Your task to perform on an android device: turn smart compose on in the gmail app Image 0: 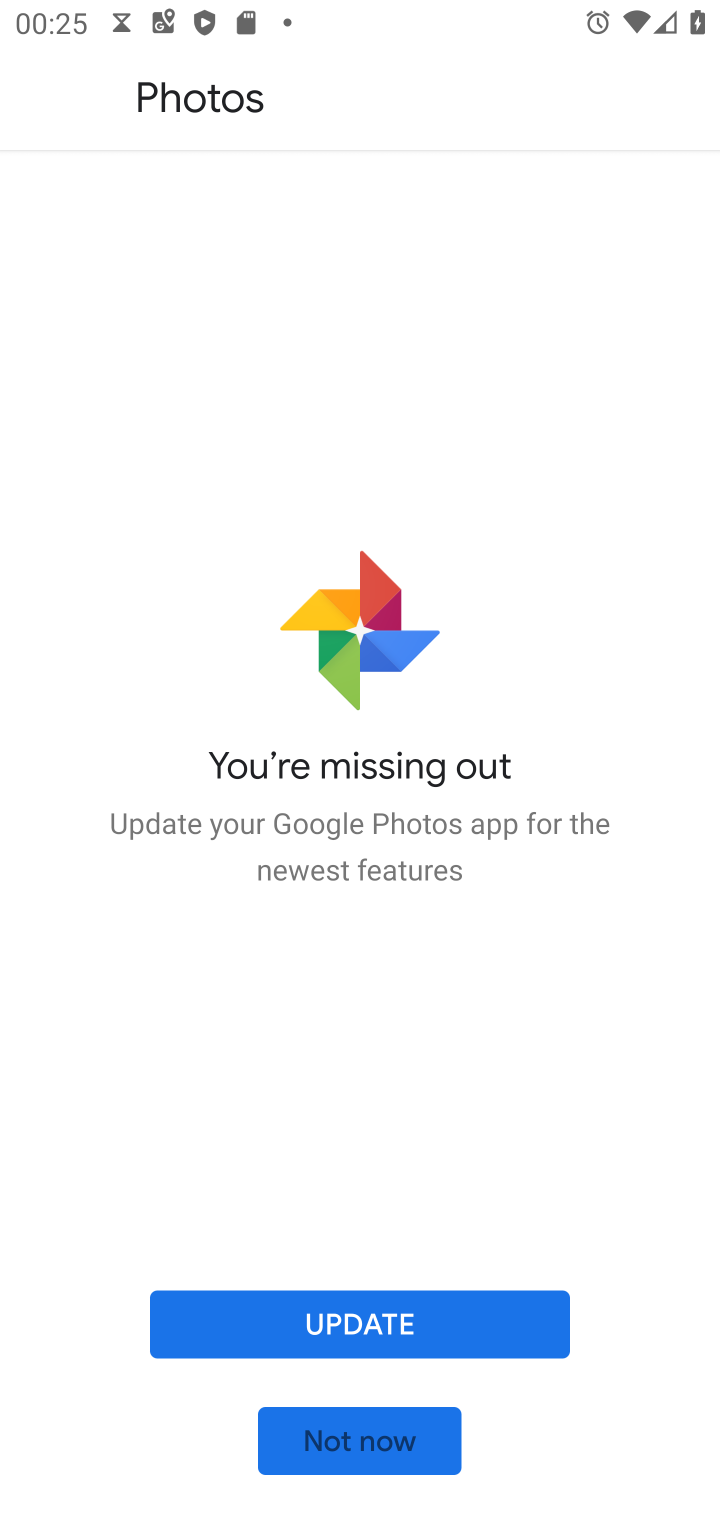
Step 0: press home button
Your task to perform on an android device: turn smart compose on in the gmail app Image 1: 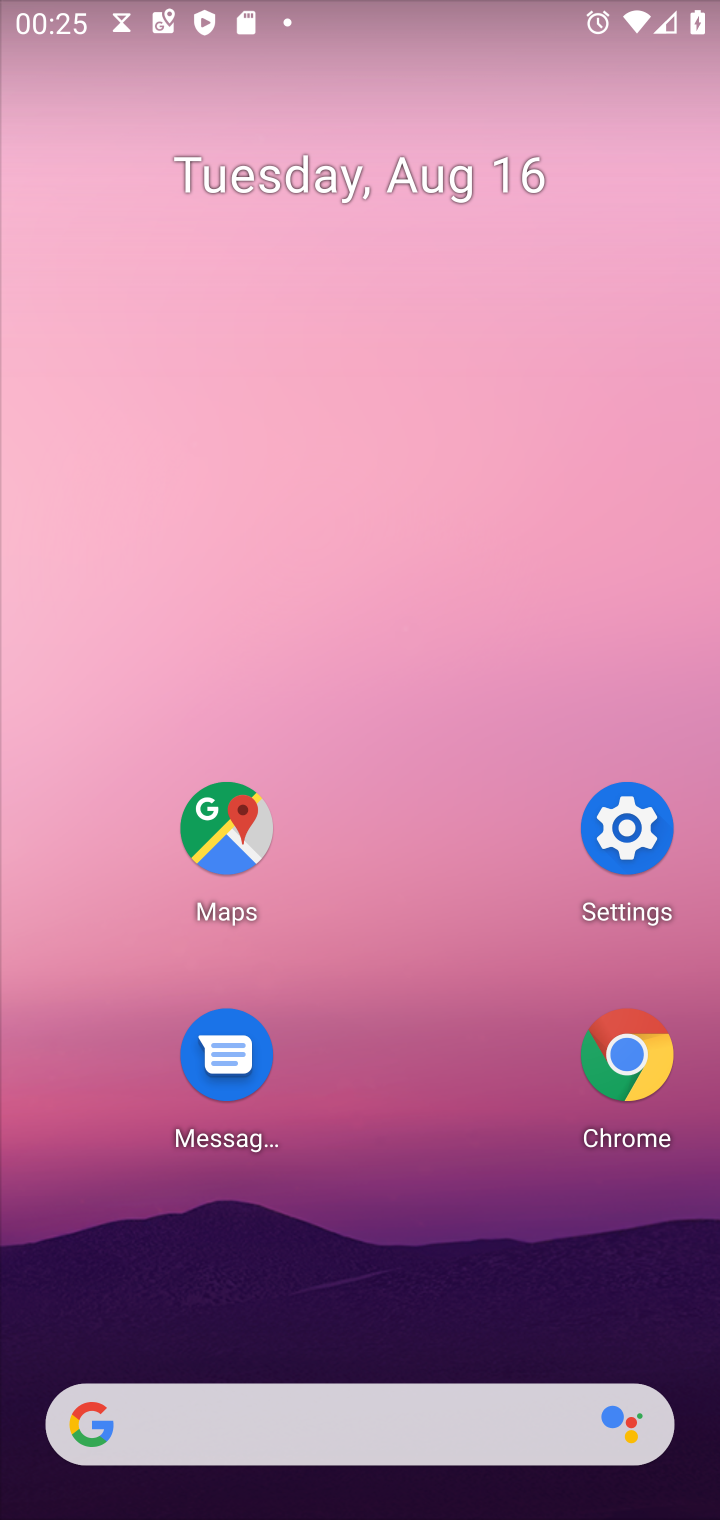
Step 1: drag from (325, 1424) to (457, 178)
Your task to perform on an android device: turn smart compose on in the gmail app Image 2: 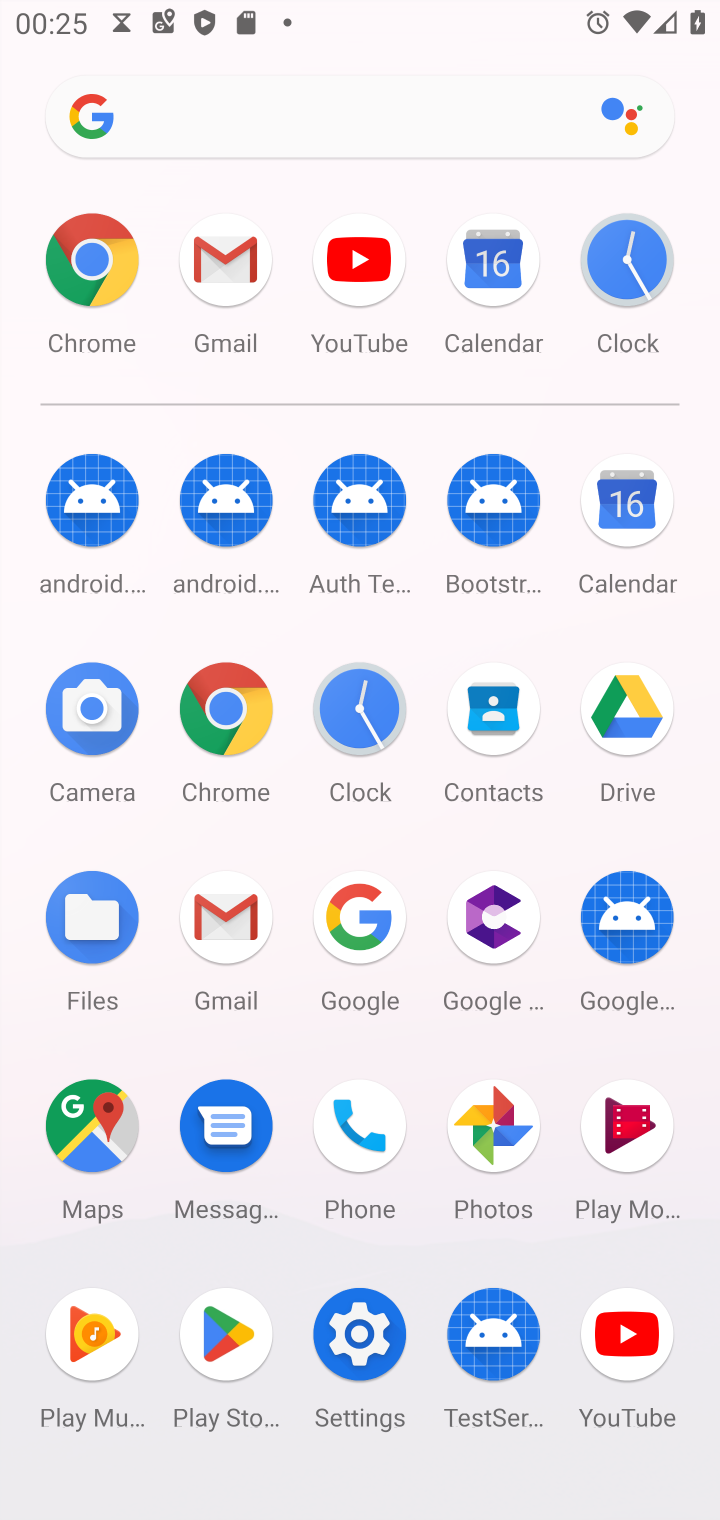
Step 2: click (230, 907)
Your task to perform on an android device: turn smart compose on in the gmail app Image 3: 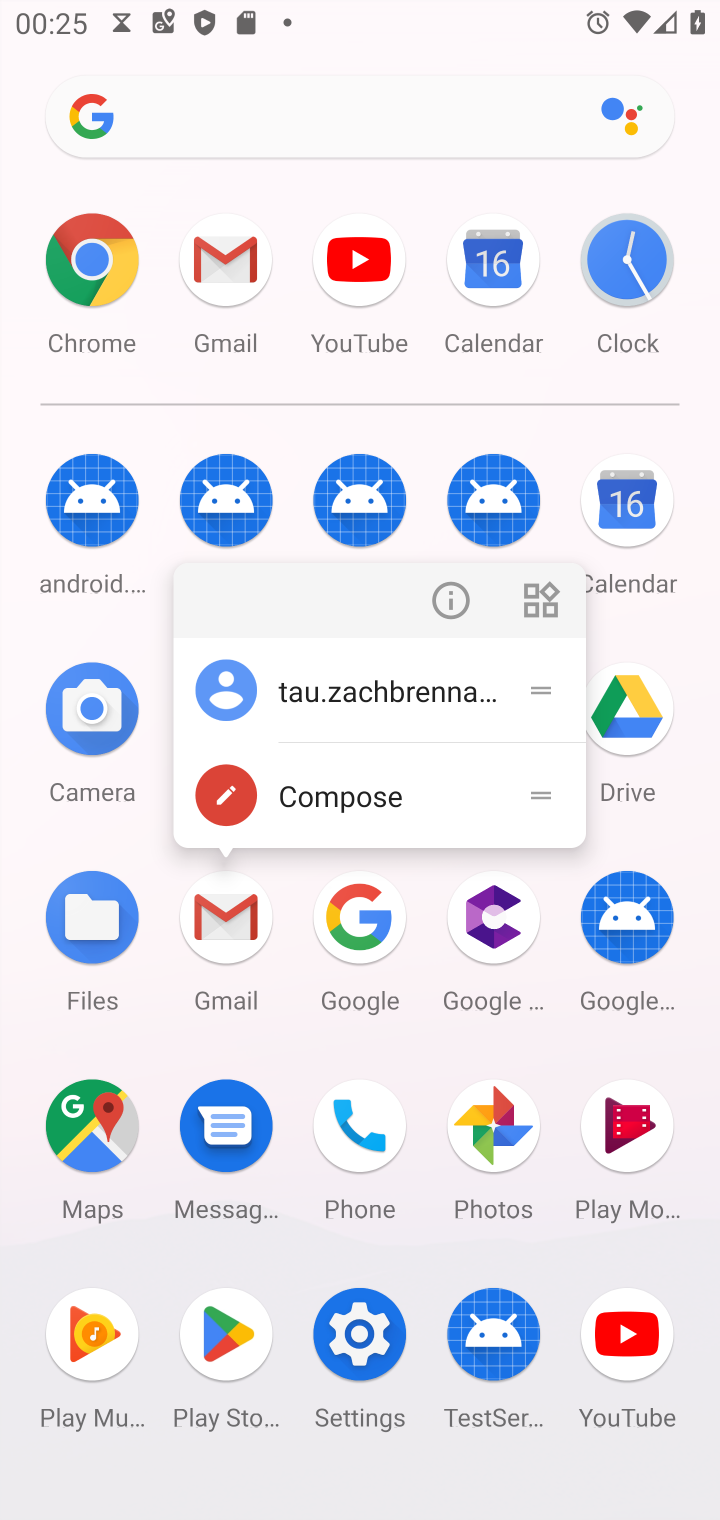
Step 3: click (230, 914)
Your task to perform on an android device: turn smart compose on in the gmail app Image 4: 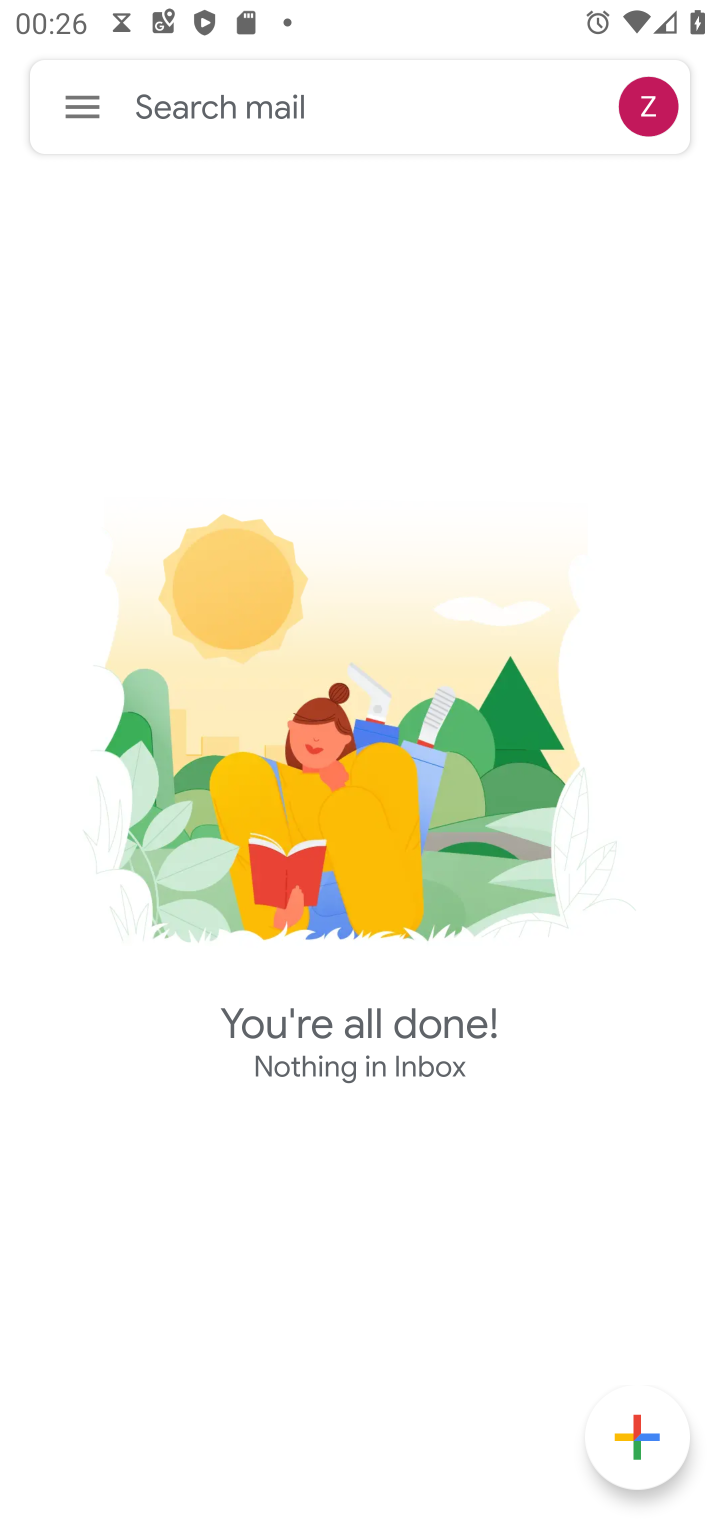
Step 4: click (95, 105)
Your task to perform on an android device: turn smart compose on in the gmail app Image 5: 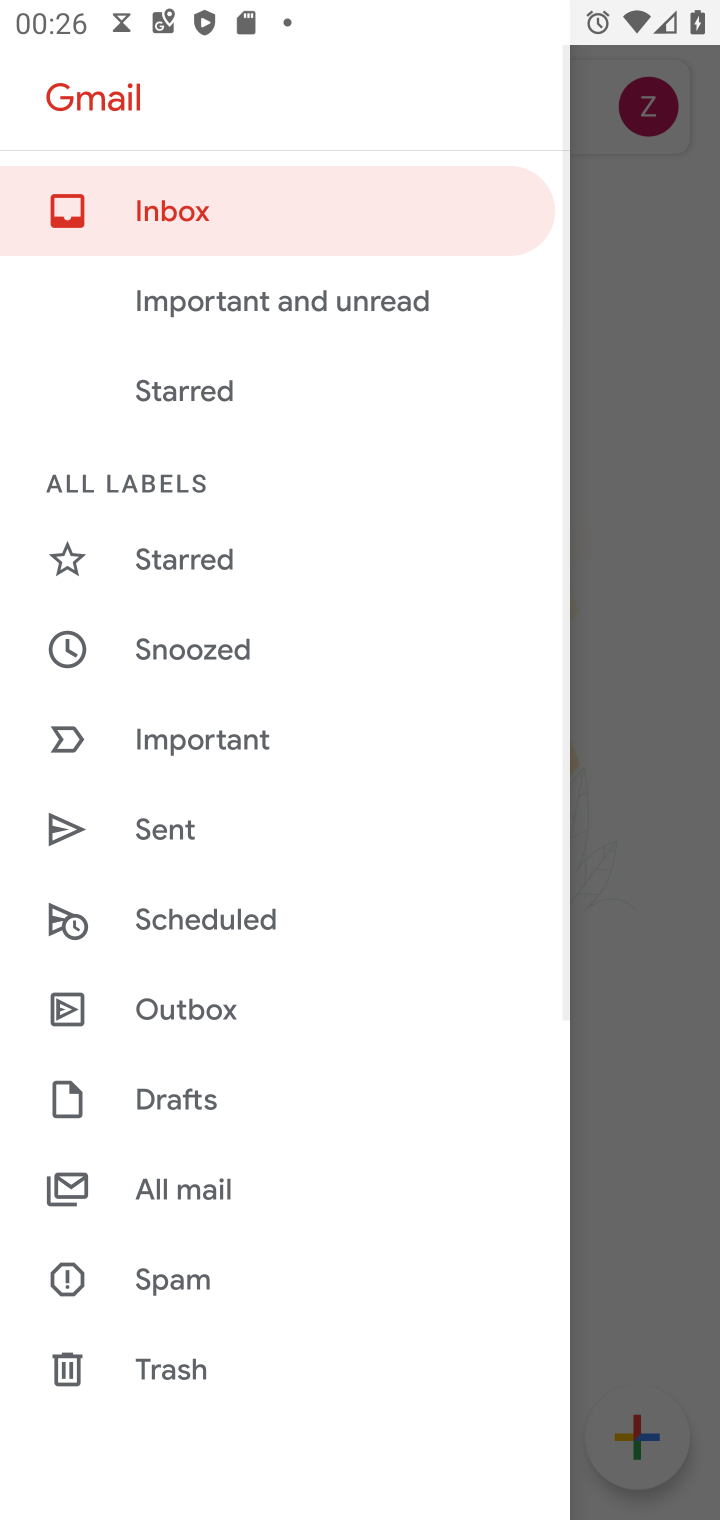
Step 5: drag from (302, 1164) to (551, 230)
Your task to perform on an android device: turn smart compose on in the gmail app Image 6: 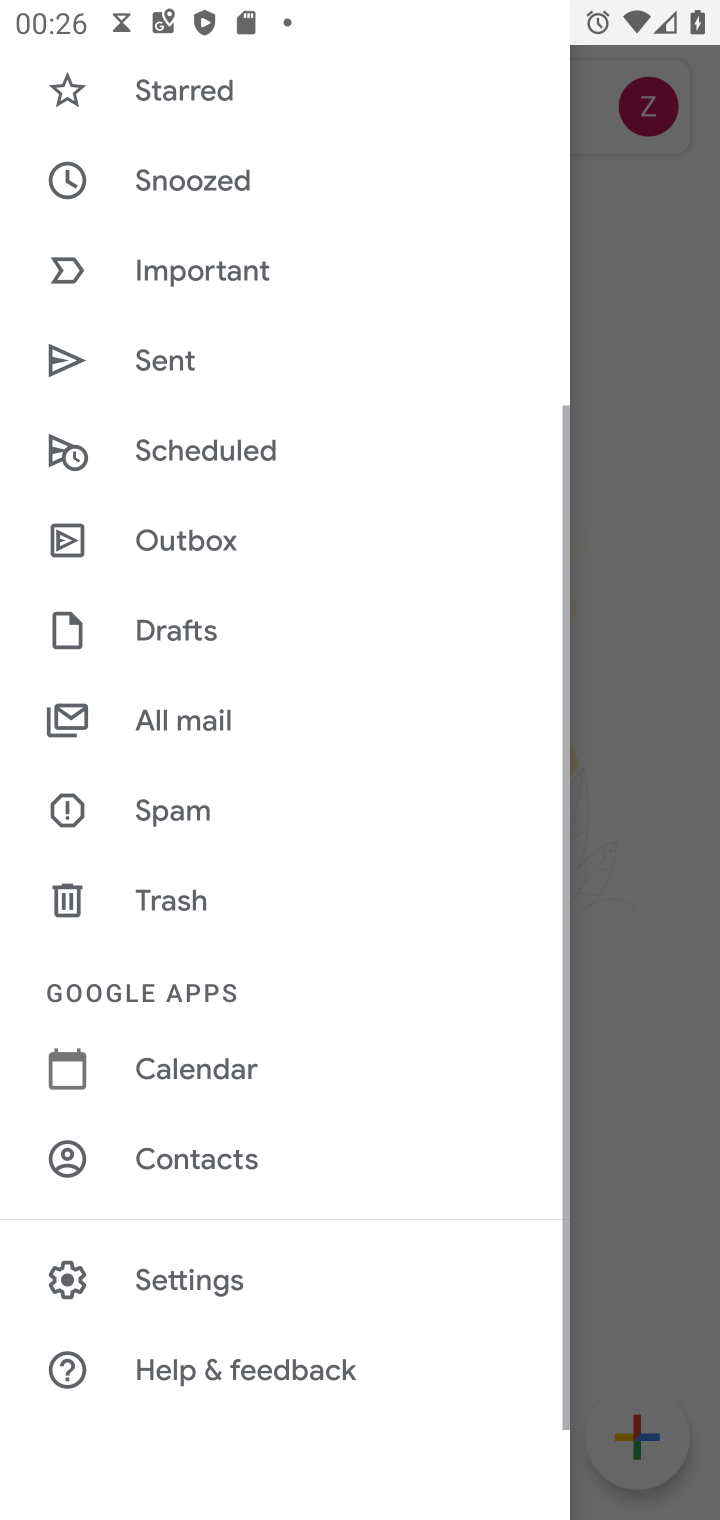
Step 6: click (220, 1273)
Your task to perform on an android device: turn smart compose on in the gmail app Image 7: 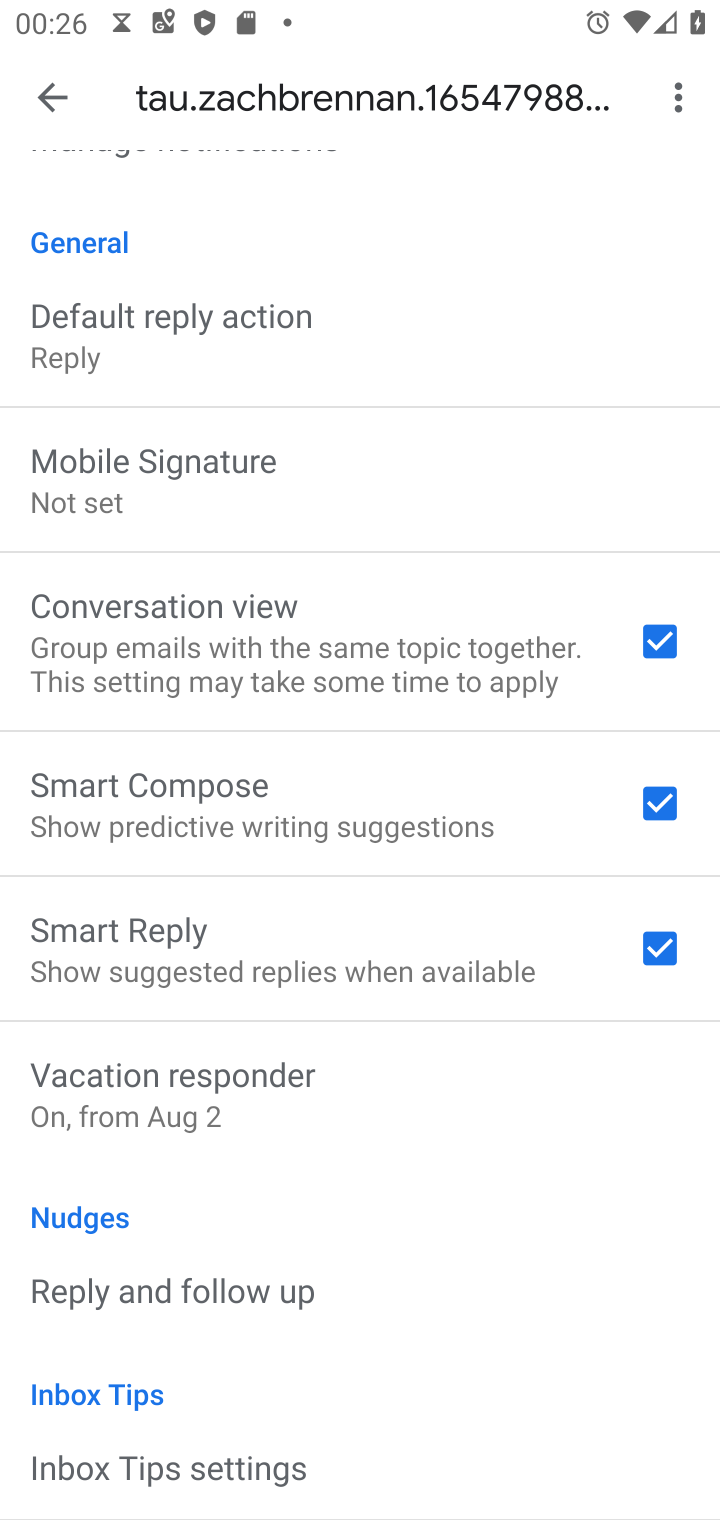
Step 7: task complete